Your task to perform on an android device: open chrome and create a bookmark for the current page Image 0: 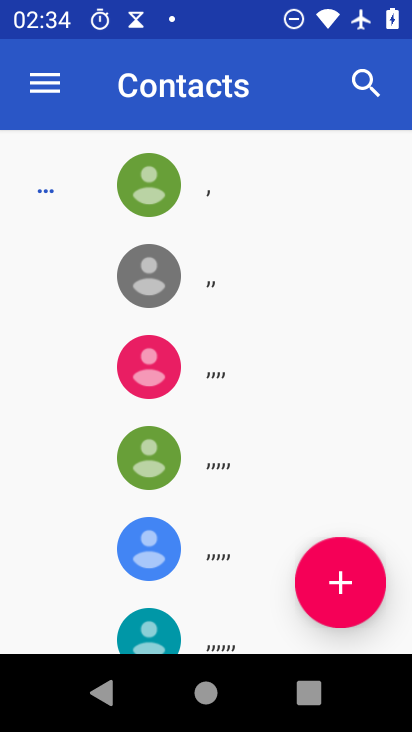
Step 0: press home button
Your task to perform on an android device: open chrome and create a bookmark for the current page Image 1: 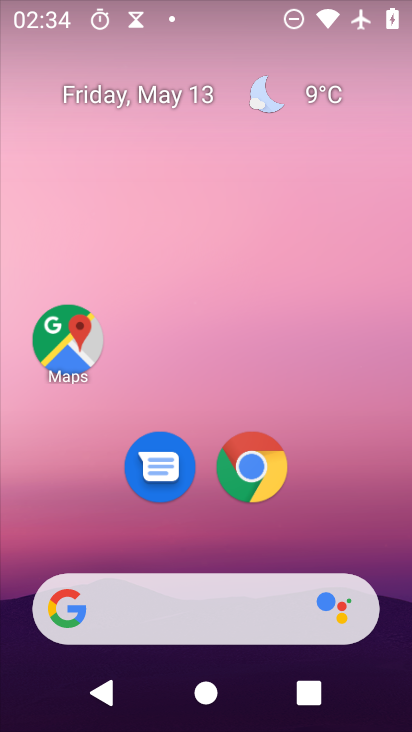
Step 1: click (250, 465)
Your task to perform on an android device: open chrome and create a bookmark for the current page Image 2: 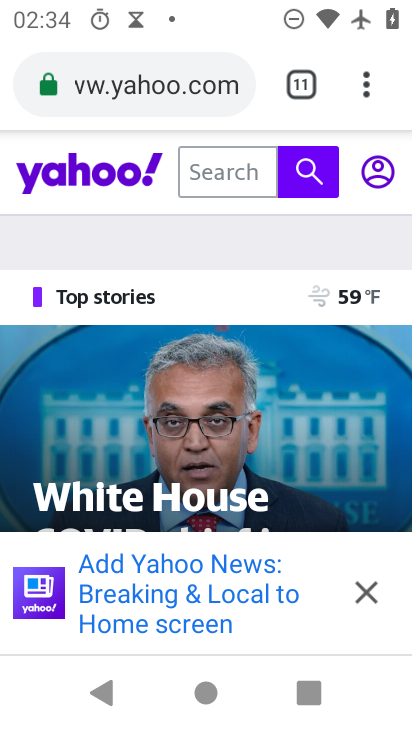
Step 2: click (355, 92)
Your task to perform on an android device: open chrome and create a bookmark for the current page Image 3: 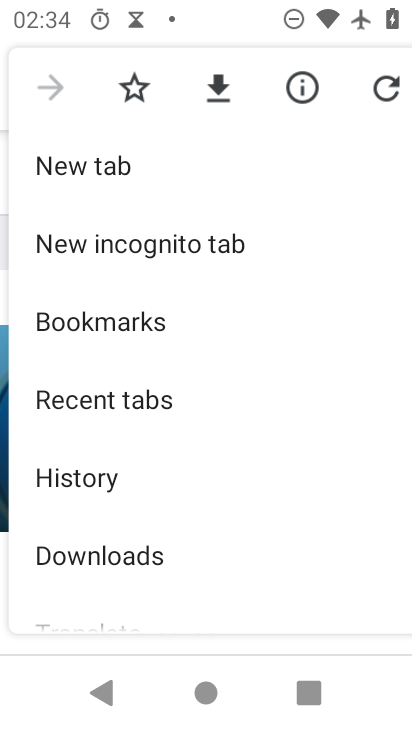
Step 3: click (133, 88)
Your task to perform on an android device: open chrome and create a bookmark for the current page Image 4: 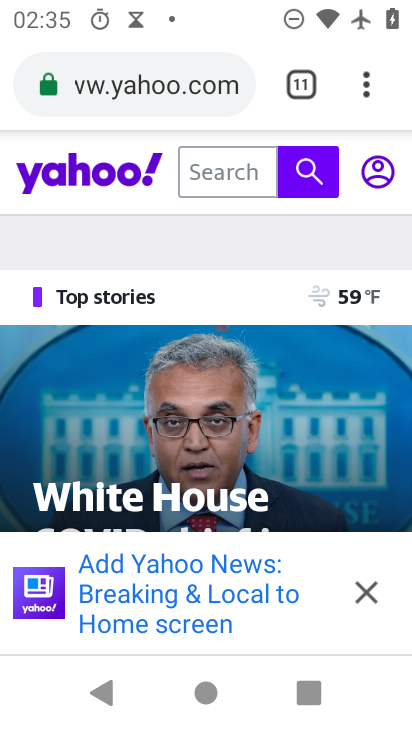
Step 4: task complete